Your task to perform on an android device: move a message to another label in the gmail app Image 0: 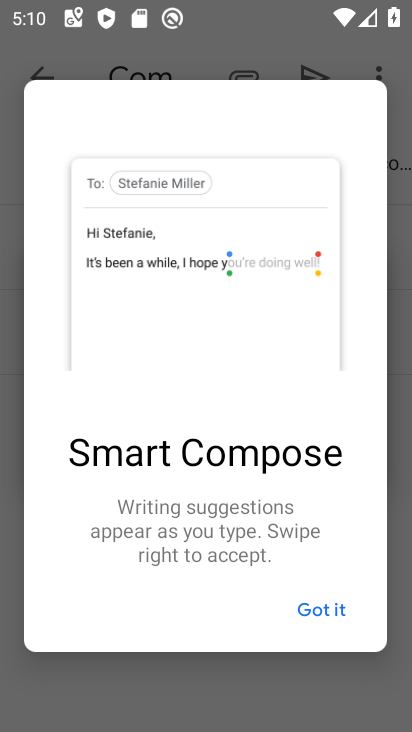
Step 0: press home button
Your task to perform on an android device: move a message to another label in the gmail app Image 1: 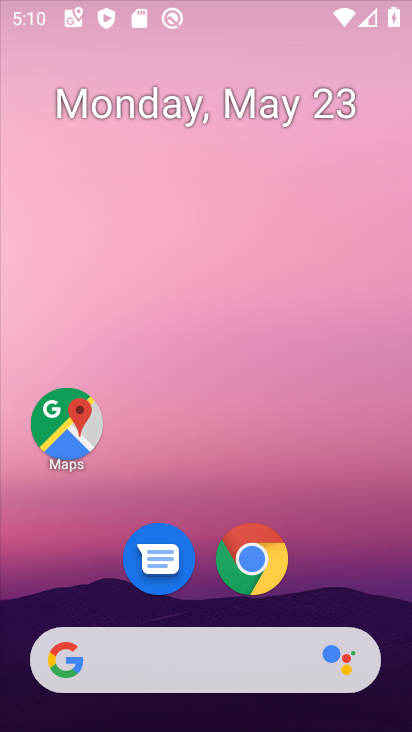
Step 1: drag from (227, 671) to (215, 66)
Your task to perform on an android device: move a message to another label in the gmail app Image 2: 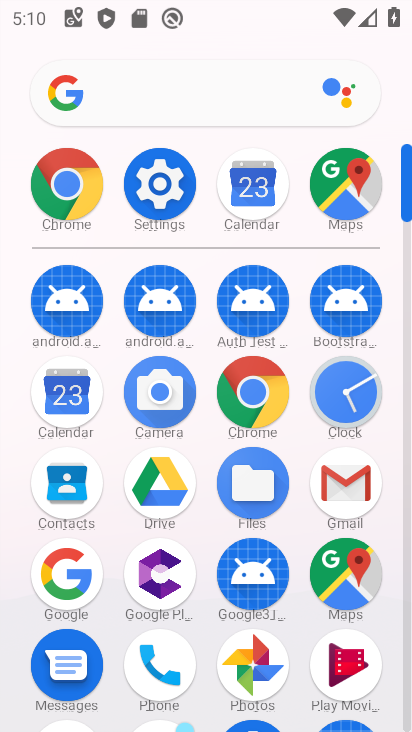
Step 2: click (358, 502)
Your task to perform on an android device: move a message to another label in the gmail app Image 3: 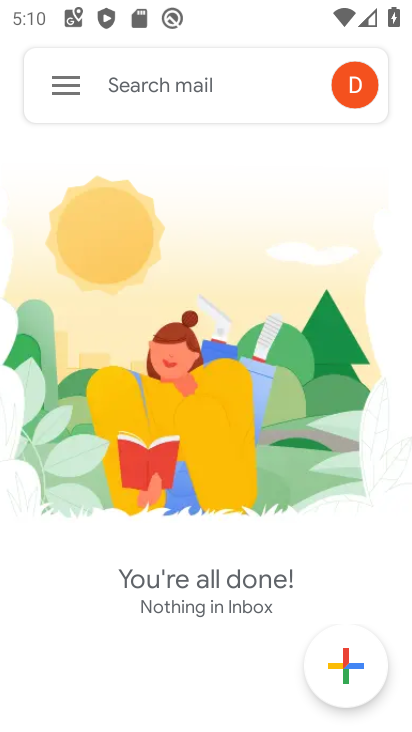
Step 3: click (63, 85)
Your task to perform on an android device: move a message to another label in the gmail app Image 4: 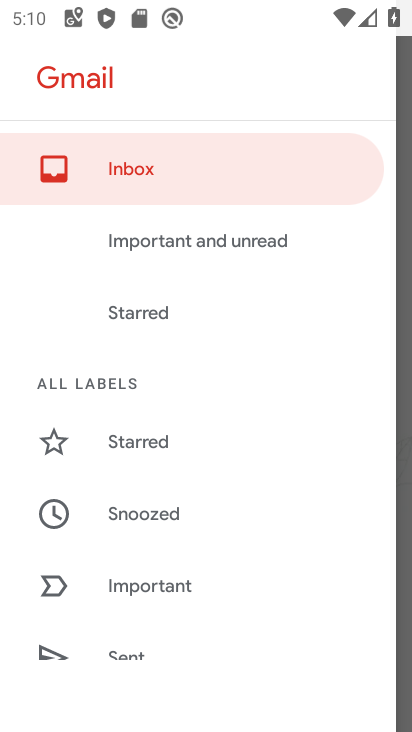
Step 4: drag from (246, 620) to (150, 95)
Your task to perform on an android device: move a message to another label in the gmail app Image 5: 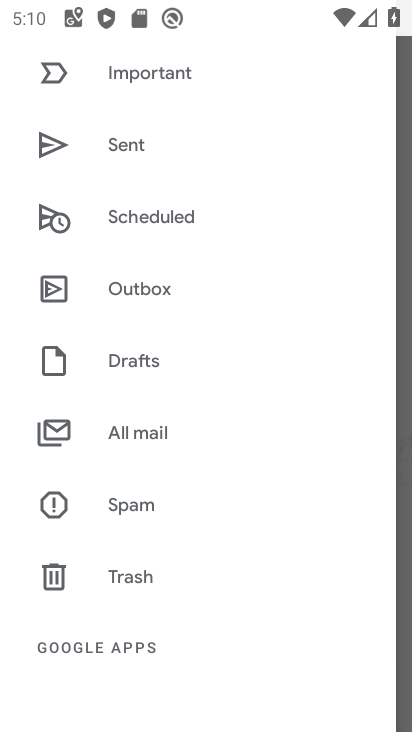
Step 5: drag from (169, 130) to (286, 670)
Your task to perform on an android device: move a message to another label in the gmail app Image 6: 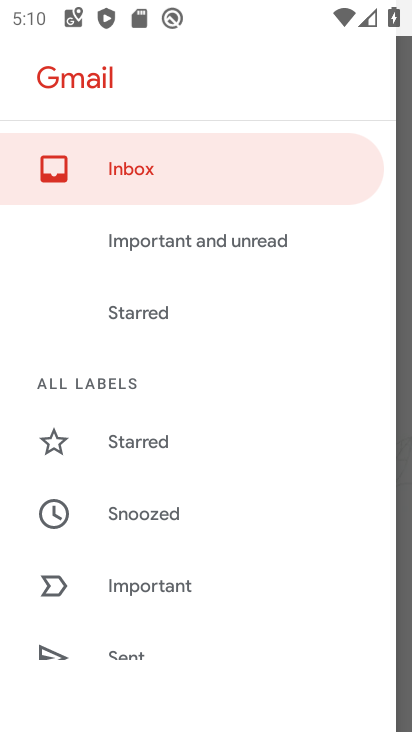
Step 6: click (144, 450)
Your task to perform on an android device: move a message to another label in the gmail app Image 7: 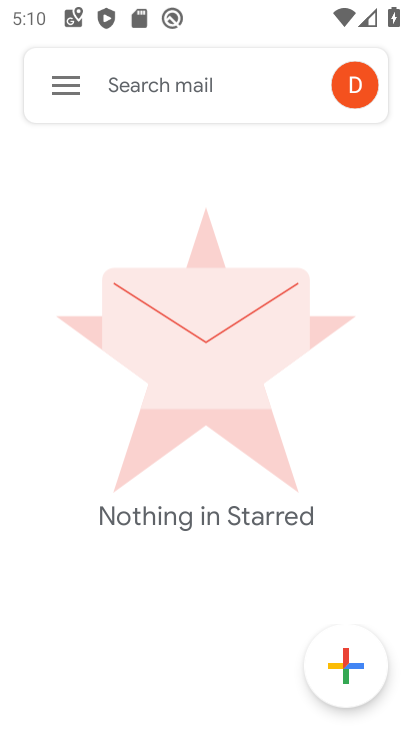
Step 7: task complete